Your task to perform on an android device: turn on improve location accuracy Image 0: 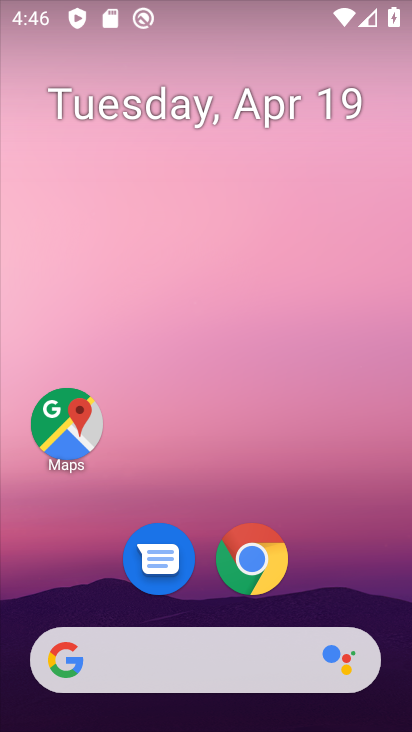
Step 0: drag from (334, 567) to (309, 81)
Your task to perform on an android device: turn on improve location accuracy Image 1: 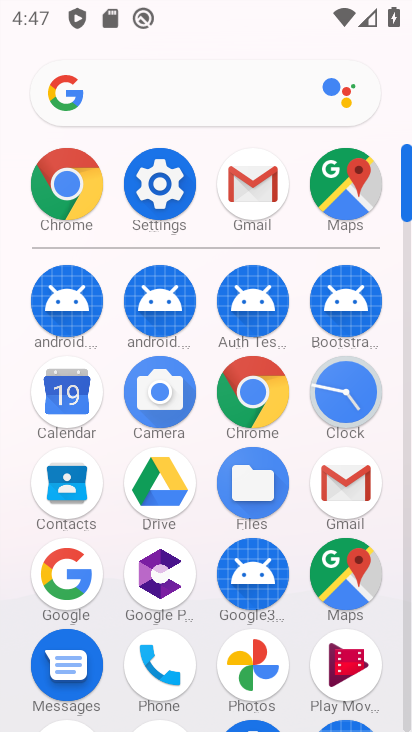
Step 1: click (171, 201)
Your task to perform on an android device: turn on improve location accuracy Image 2: 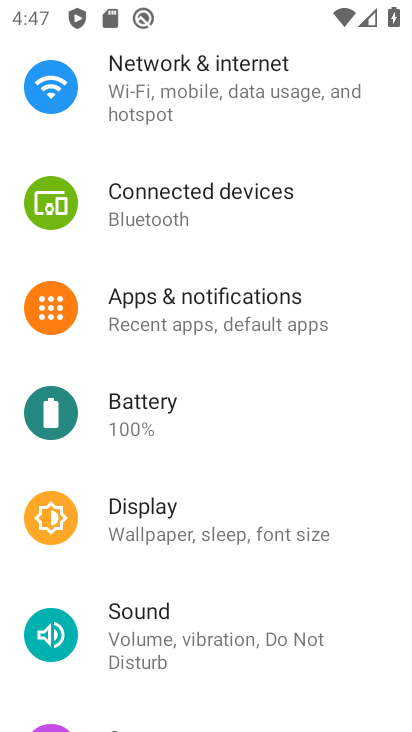
Step 2: drag from (172, 564) to (215, 356)
Your task to perform on an android device: turn on improve location accuracy Image 3: 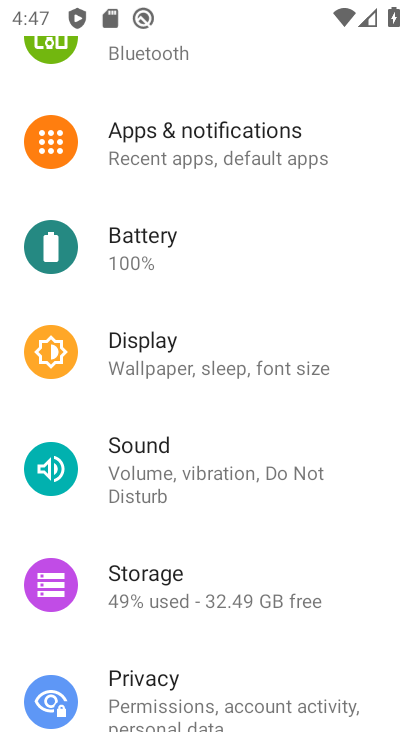
Step 3: drag from (213, 660) to (255, 202)
Your task to perform on an android device: turn on improve location accuracy Image 4: 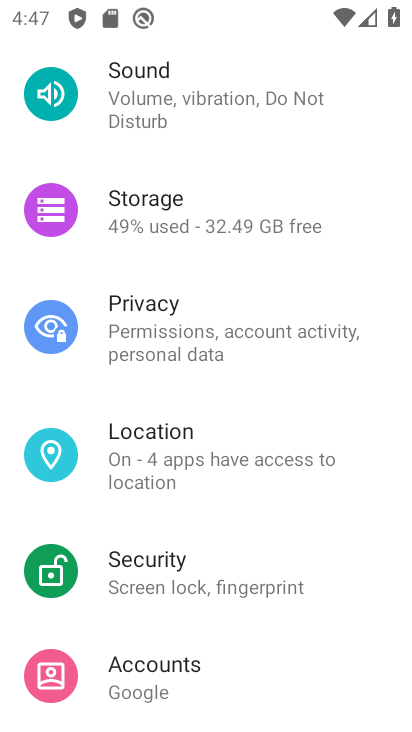
Step 4: click (226, 478)
Your task to perform on an android device: turn on improve location accuracy Image 5: 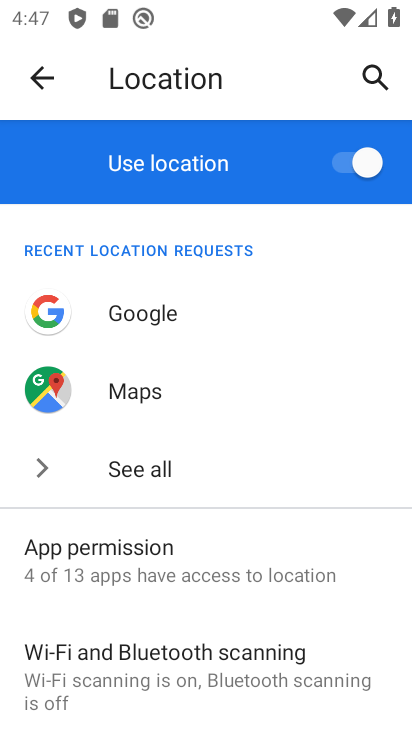
Step 5: drag from (192, 578) to (225, 383)
Your task to perform on an android device: turn on improve location accuracy Image 6: 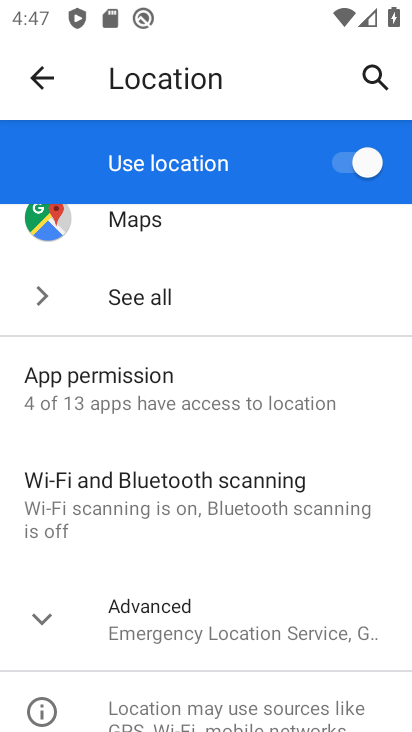
Step 6: drag from (253, 560) to (271, 341)
Your task to perform on an android device: turn on improve location accuracy Image 7: 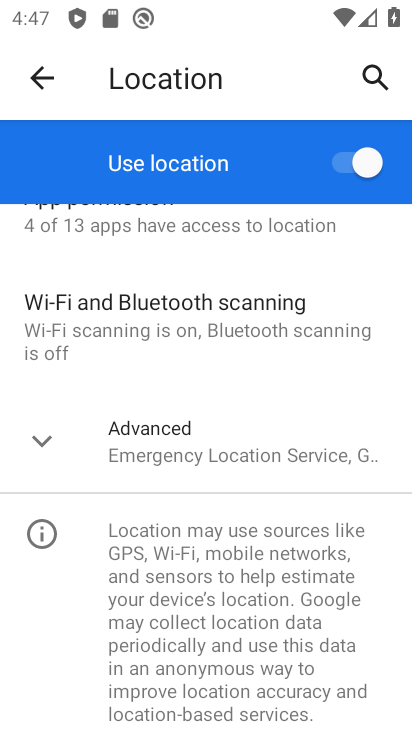
Step 7: click (210, 468)
Your task to perform on an android device: turn on improve location accuracy Image 8: 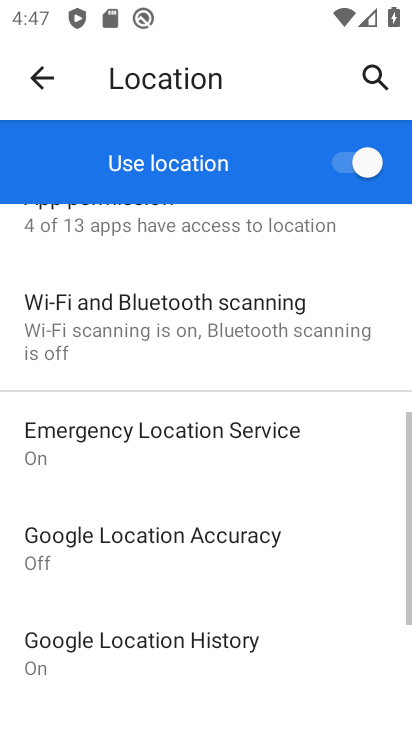
Step 8: drag from (197, 566) to (249, 397)
Your task to perform on an android device: turn on improve location accuracy Image 9: 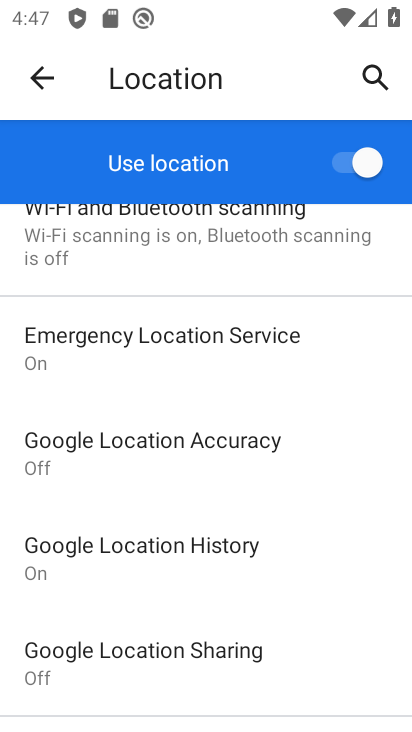
Step 9: click (179, 478)
Your task to perform on an android device: turn on improve location accuracy Image 10: 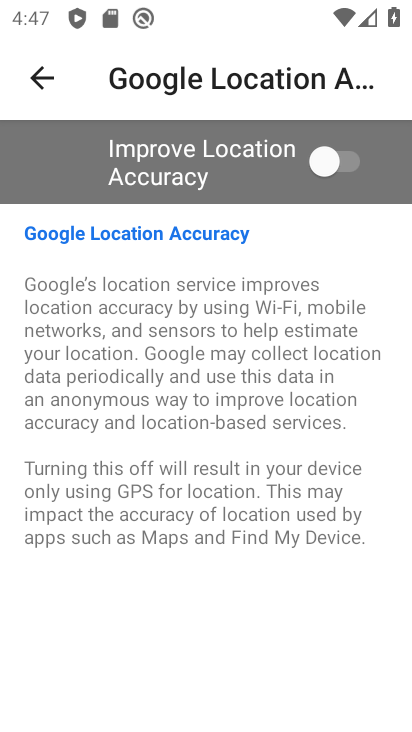
Step 10: click (379, 114)
Your task to perform on an android device: turn on improve location accuracy Image 11: 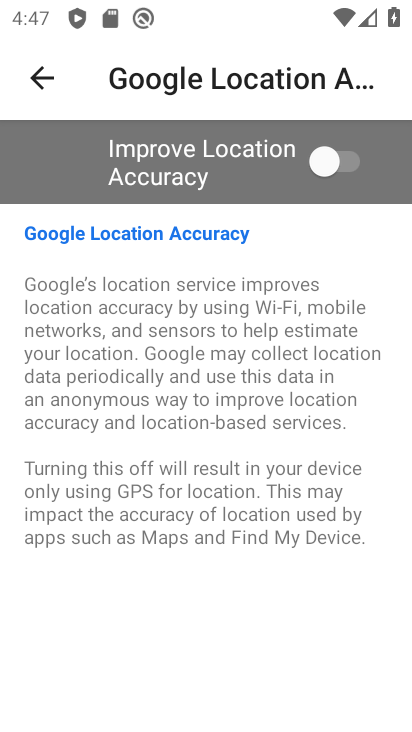
Step 11: click (364, 143)
Your task to perform on an android device: turn on improve location accuracy Image 12: 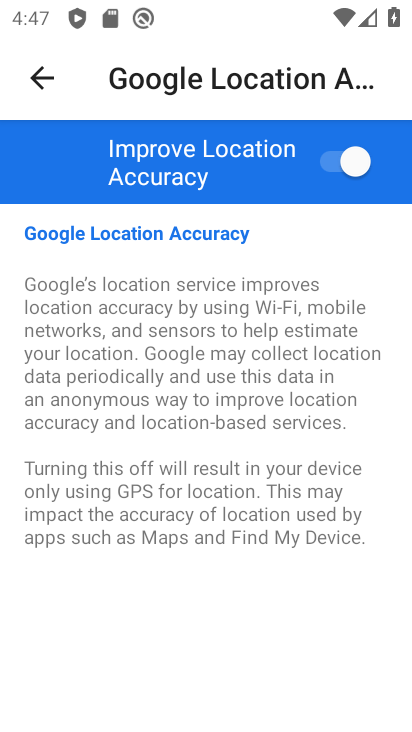
Step 12: task complete